Your task to perform on an android device: Open calendar and show me the second week of next month Image 0: 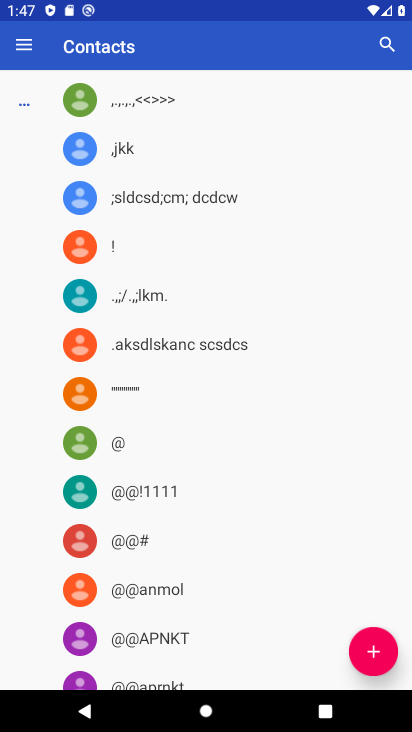
Step 0: press home button
Your task to perform on an android device: Open calendar and show me the second week of next month Image 1: 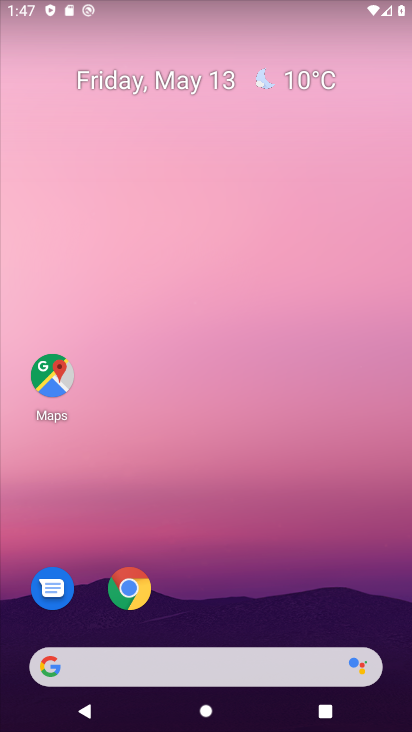
Step 1: drag from (222, 565) to (216, 60)
Your task to perform on an android device: Open calendar and show me the second week of next month Image 2: 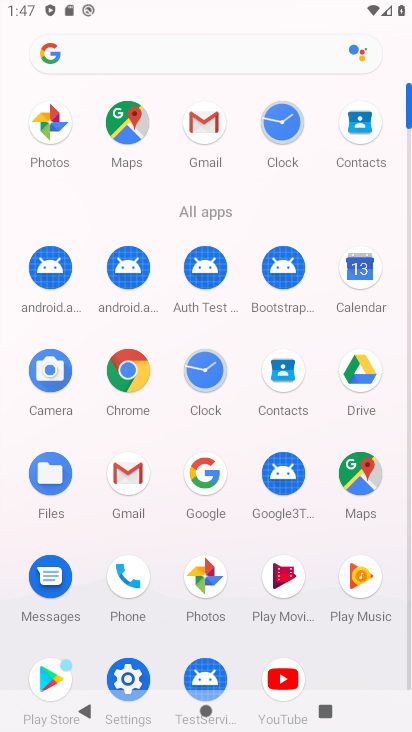
Step 2: click (364, 259)
Your task to perform on an android device: Open calendar and show me the second week of next month Image 3: 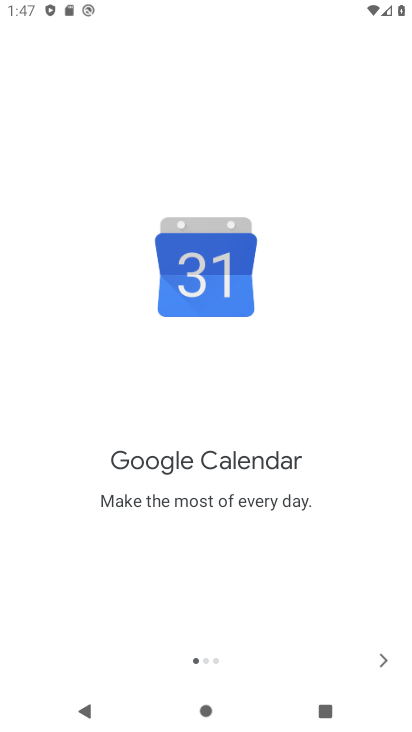
Step 3: click (387, 655)
Your task to perform on an android device: Open calendar and show me the second week of next month Image 4: 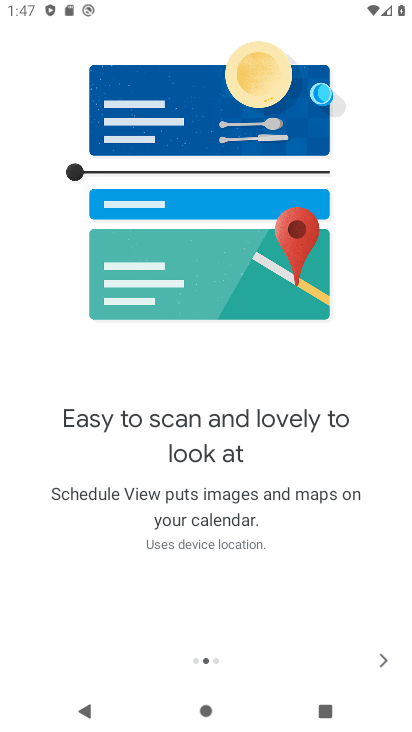
Step 4: click (387, 655)
Your task to perform on an android device: Open calendar and show me the second week of next month Image 5: 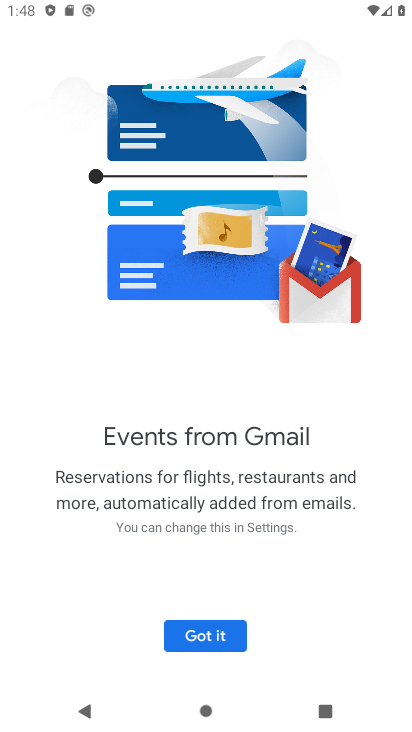
Step 5: click (229, 635)
Your task to perform on an android device: Open calendar and show me the second week of next month Image 6: 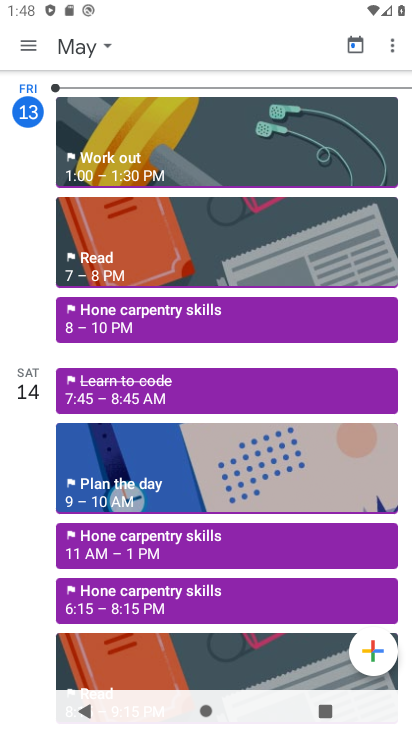
Step 6: click (92, 45)
Your task to perform on an android device: Open calendar and show me the second week of next month Image 7: 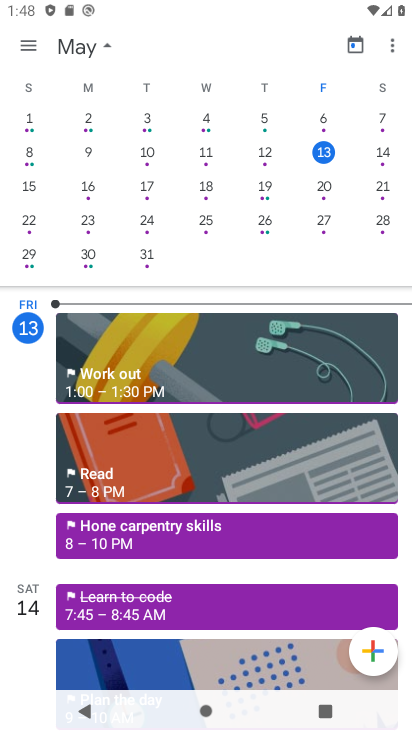
Step 7: drag from (399, 143) to (24, 143)
Your task to perform on an android device: Open calendar and show me the second week of next month Image 8: 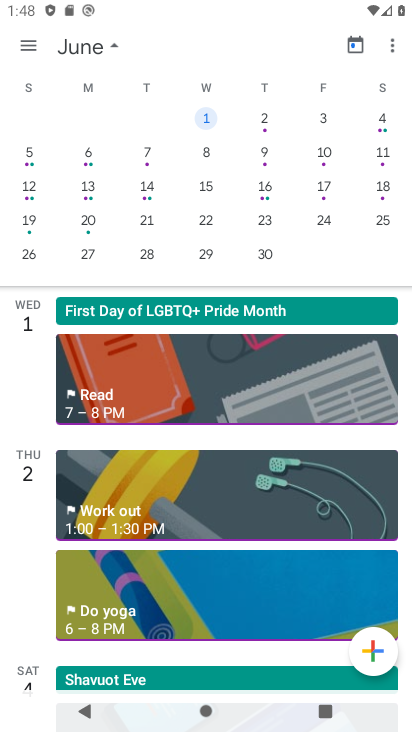
Step 8: click (153, 183)
Your task to perform on an android device: Open calendar and show me the second week of next month Image 9: 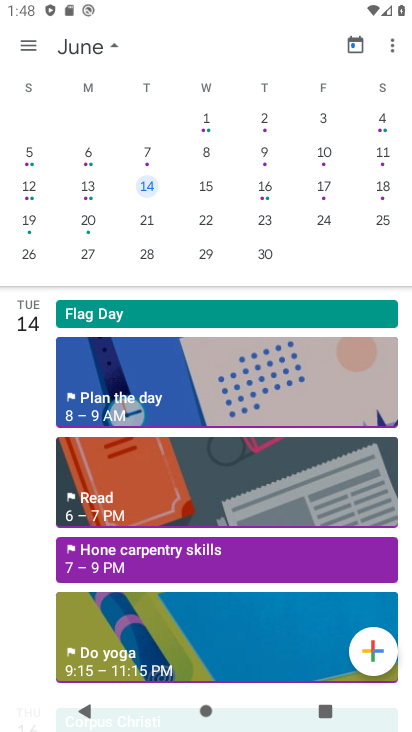
Step 9: task complete